Your task to perform on an android device: turn on sleep mode Image 0: 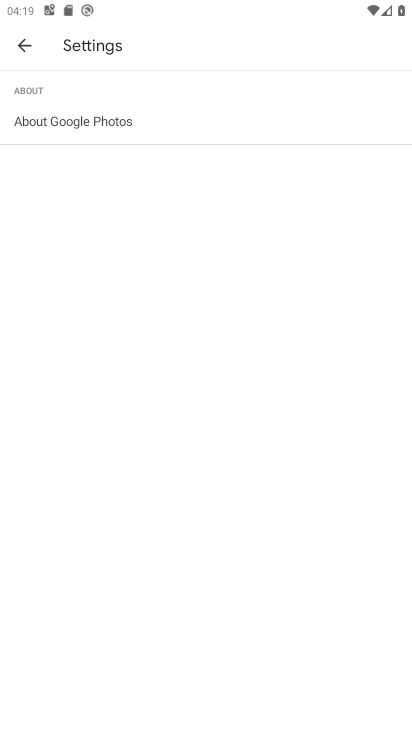
Step 0: drag from (168, 7) to (235, 524)
Your task to perform on an android device: turn on sleep mode Image 1: 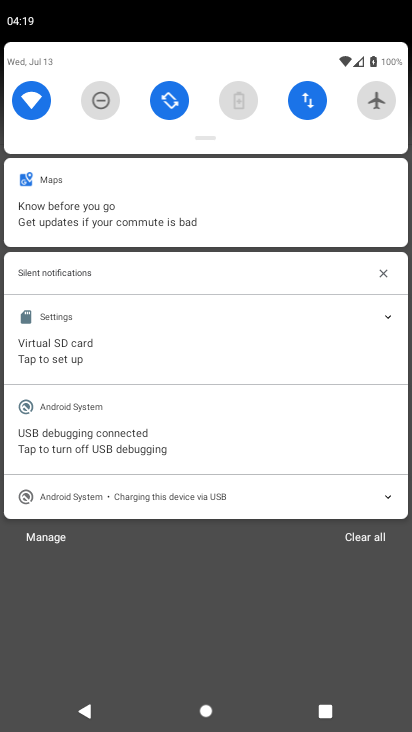
Step 1: drag from (194, 79) to (213, 530)
Your task to perform on an android device: turn on sleep mode Image 2: 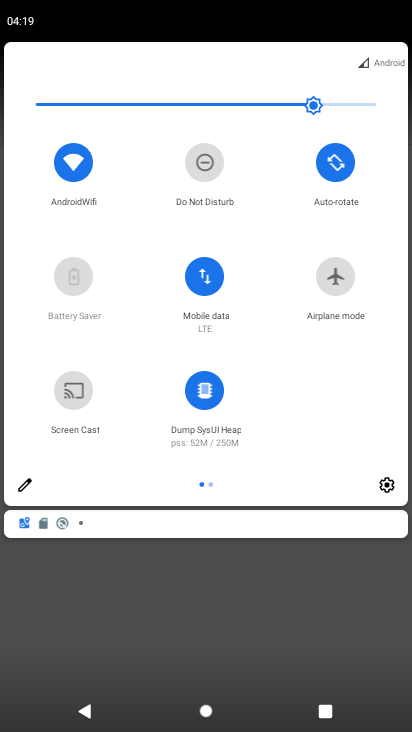
Step 2: click (388, 483)
Your task to perform on an android device: turn on sleep mode Image 3: 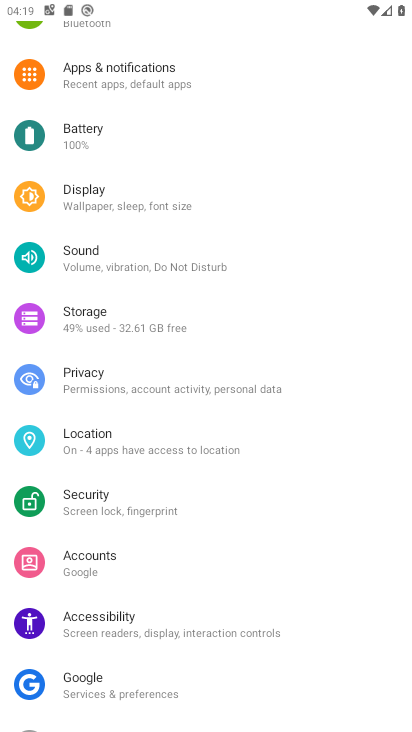
Step 3: task complete